Your task to perform on an android device: Open Amazon Image 0: 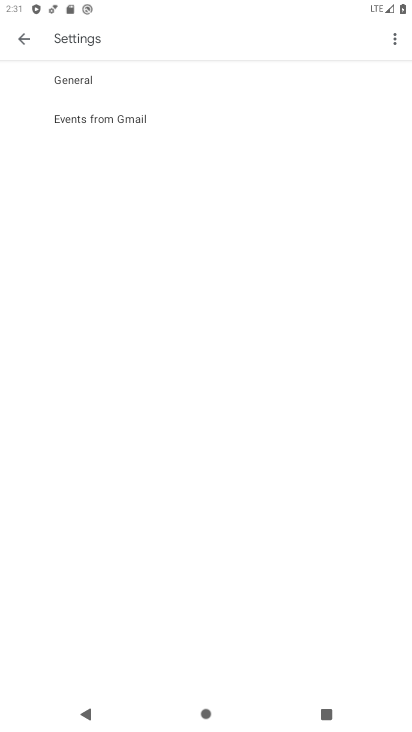
Step 0: press home button
Your task to perform on an android device: Open Amazon Image 1: 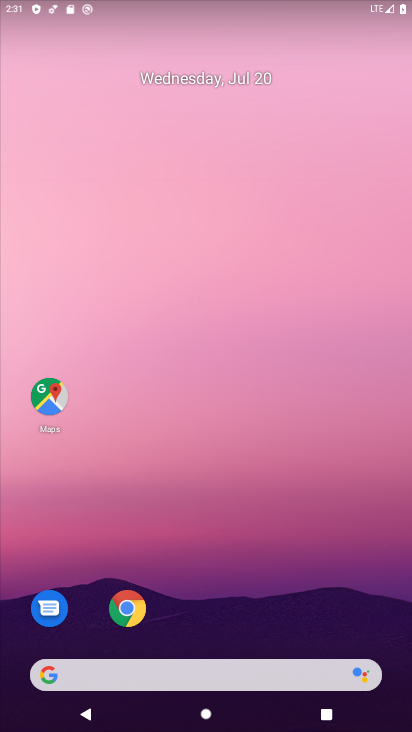
Step 1: drag from (222, 638) to (252, 0)
Your task to perform on an android device: Open Amazon Image 2: 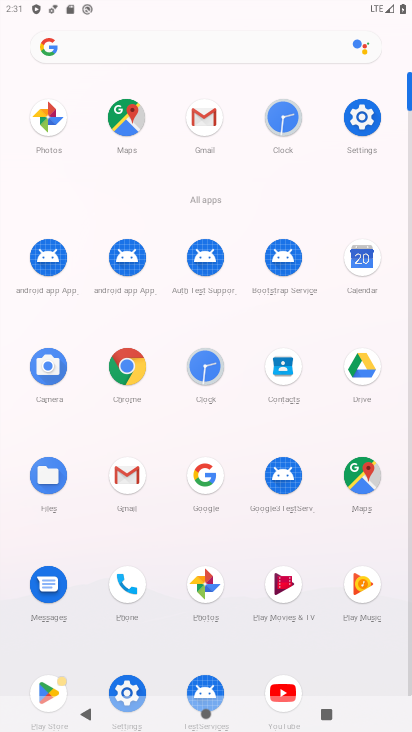
Step 2: click (128, 380)
Your task to perform on an android device: Open Amazon Image 3: 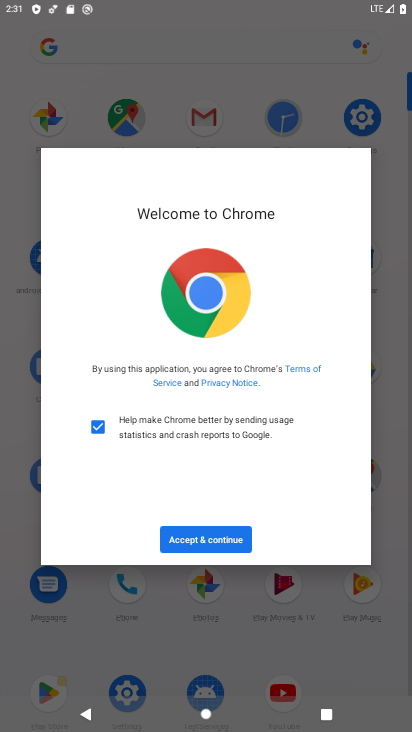
Step 3: click (198, 534)
Your task to perform on an android device: Open Amazon Image 4: 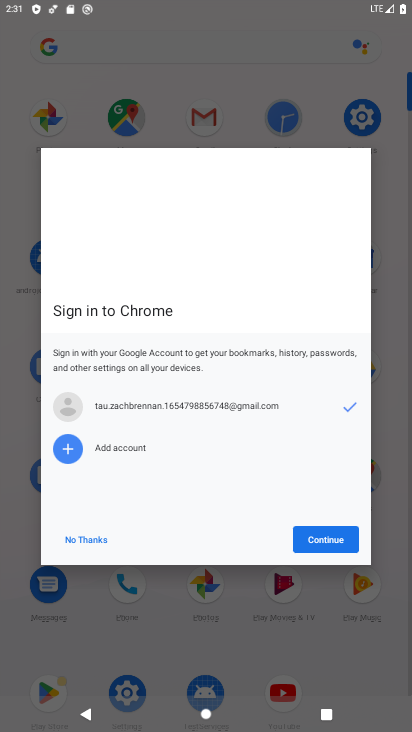
Step 4: click (309, 548)
Your task to perform on an android device: Open Amazon Image 5: 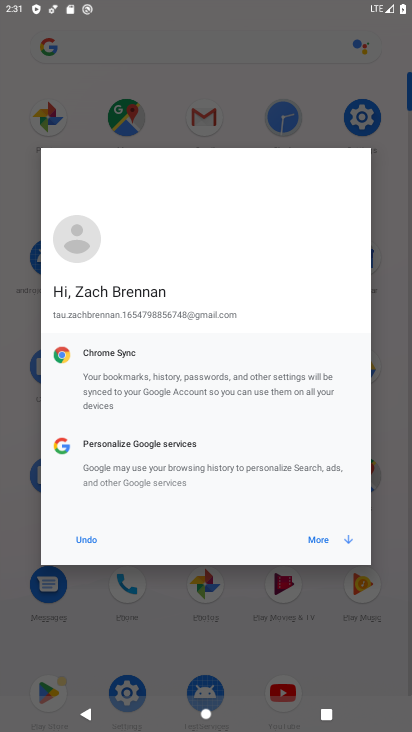
Step 5: click (309, 548)
Your task to perform on an android device: Open Amazon Image 6: 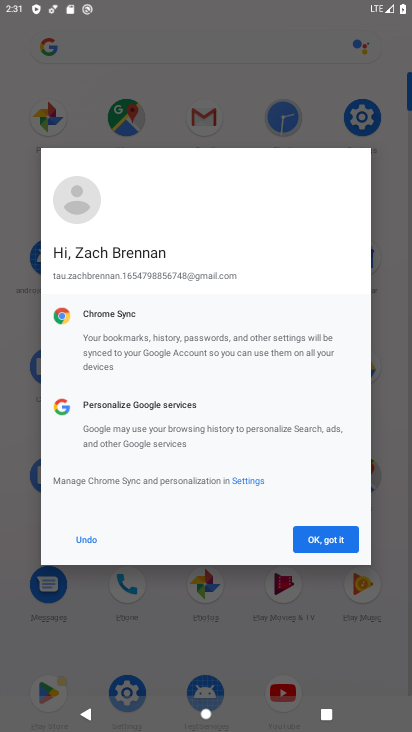
Step 6: click (309, 548)
Your task to perform on an android device: Open Amazon Image 7: 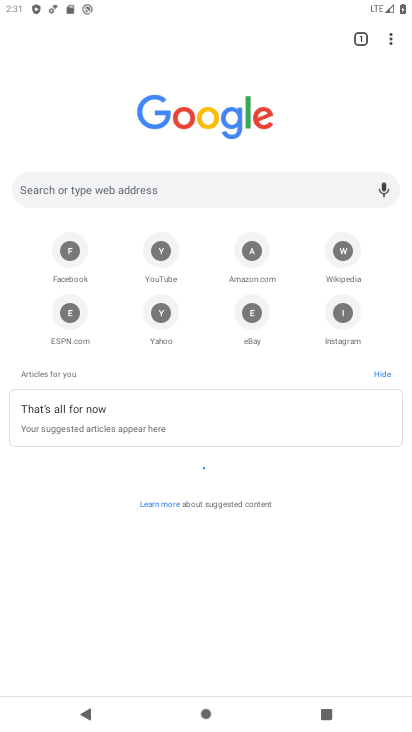
Step 7: click (243, 255)
Your task to perform on an android device: Open Amazon Image 8: 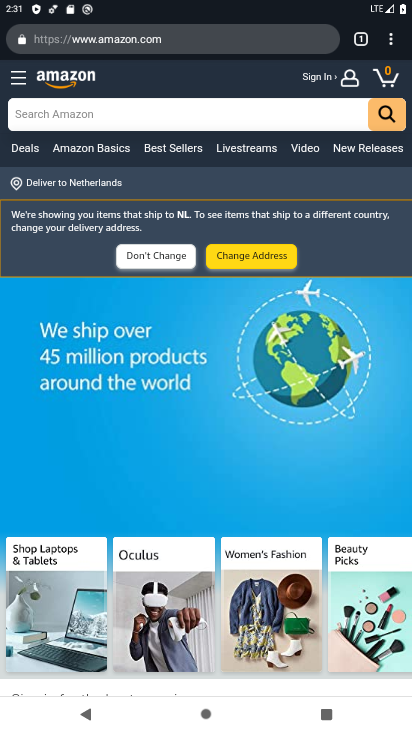
Step 8: task complete